Your task to perform on an android device: Open Chrome and go to settings Image 0: 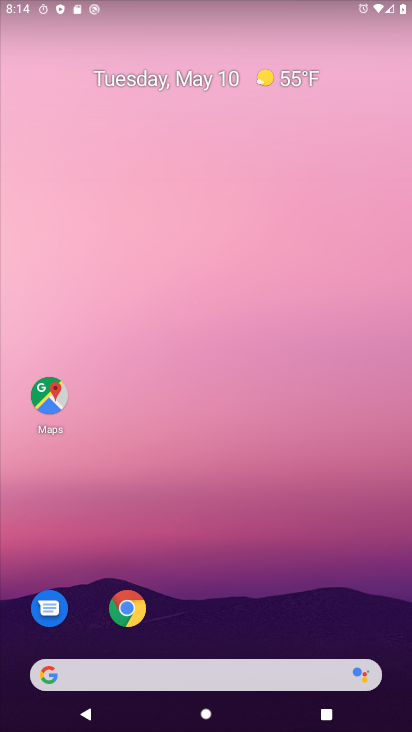
Step 0: click (126, 610)
Your task to perform on an android device: Open Chrome and go to settings Image 1: 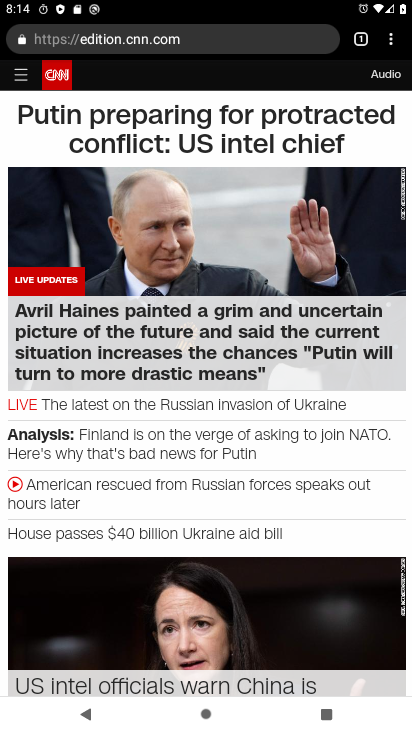
Step 1: click (390, 41)
Your task to perform on an android device: Open Chrome and go to settings Image 2: 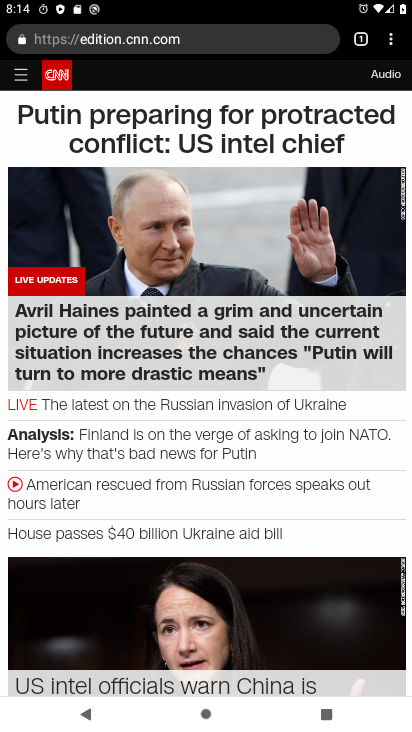
Step 2: click (395, 41)
Your task to perform on an android device: Open Chrome and go to settings Image 3: 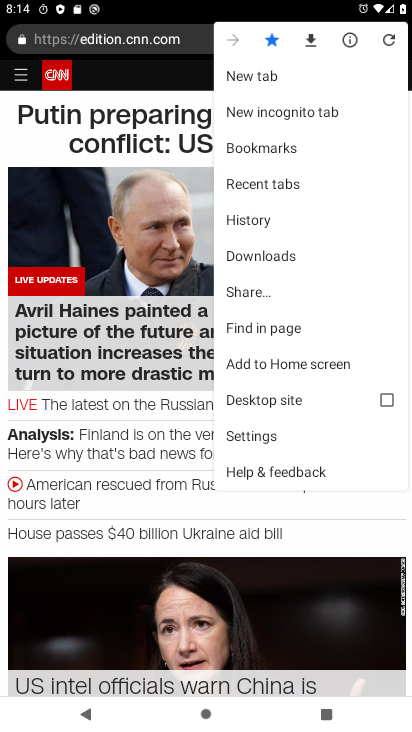
Step 3: click (248, 437)
Your task to perform on an android device: Open Chrome and go to settings Image 4: 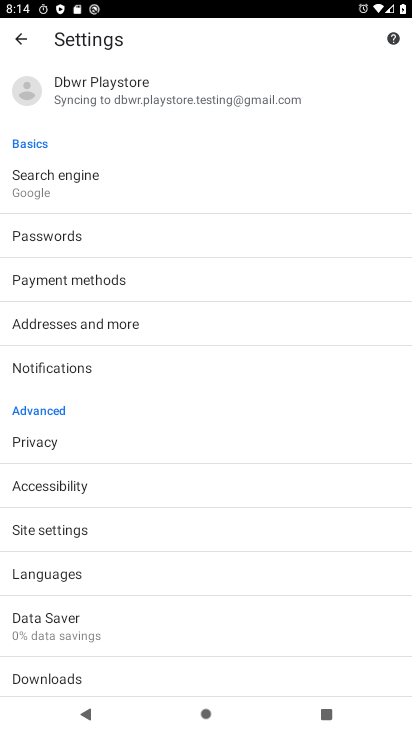
Step 4: task complete